Your task to perform on an android device: turn on the 24-hour format for clock Image 0: 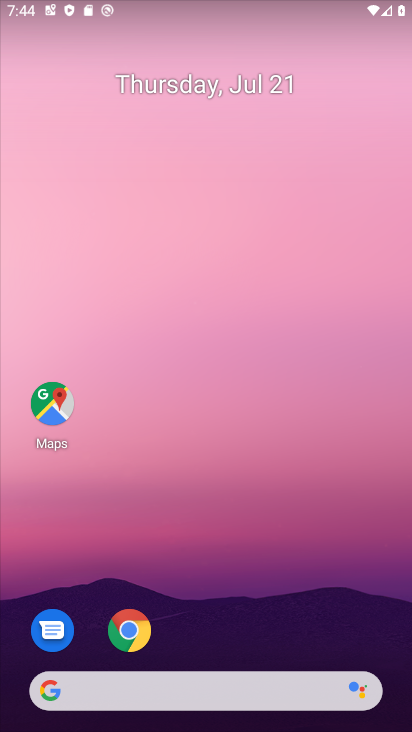
Step 0: drag from (169, 615) to (266, 1)
Your task to perform on an android device: turn on the 24-hour format for clock Image 1: 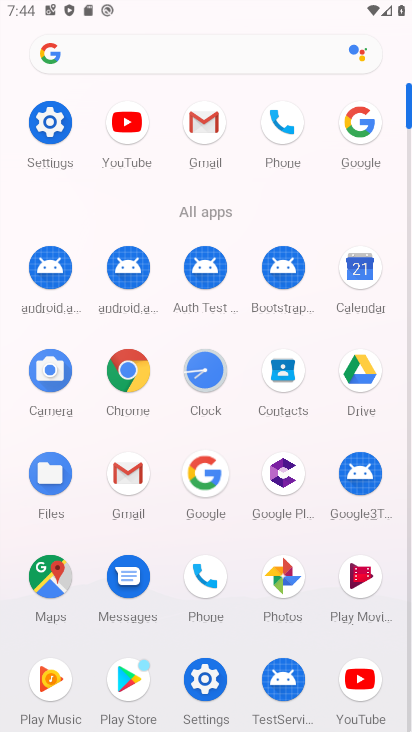
Step 1: click (203, 365)
Your task to perform on an android device: turn on the 24-hour format for clock Image 2: 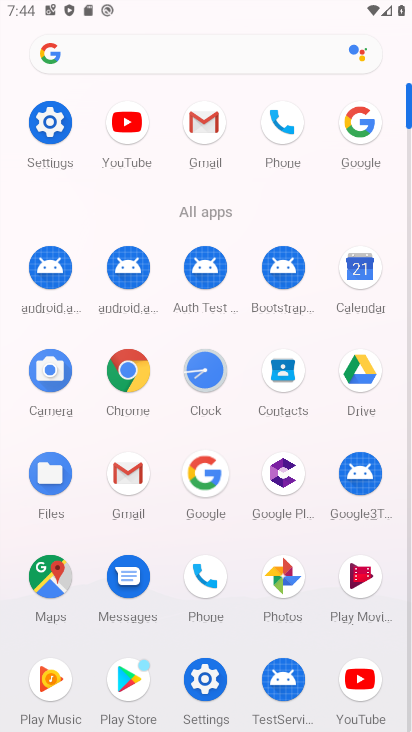
Step 2: click (203, 365)
Your task to perform on an android device: turn on the 24-hour format for clock Image 3: 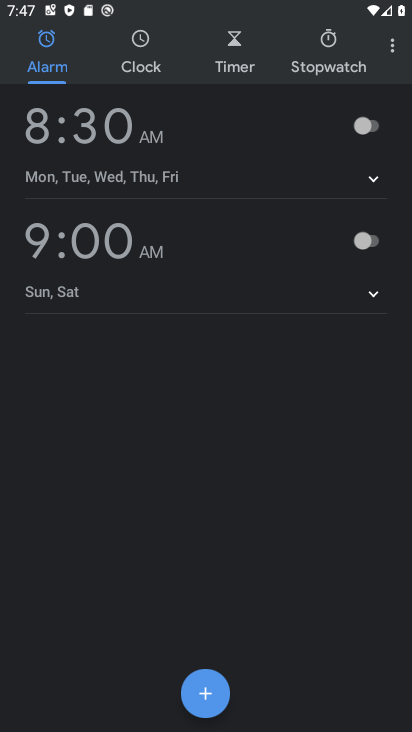
Step 3: click (393, 50)
Your task to perform on an android device: turn on the 24-hour format for clock Image 4: 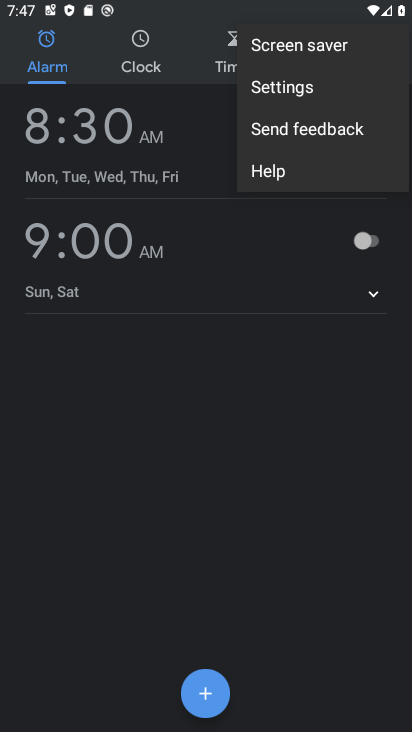
Step 4: click (310, 88)
Your task to perform on an android device: turn on the 24-hour format for clock Image 5: 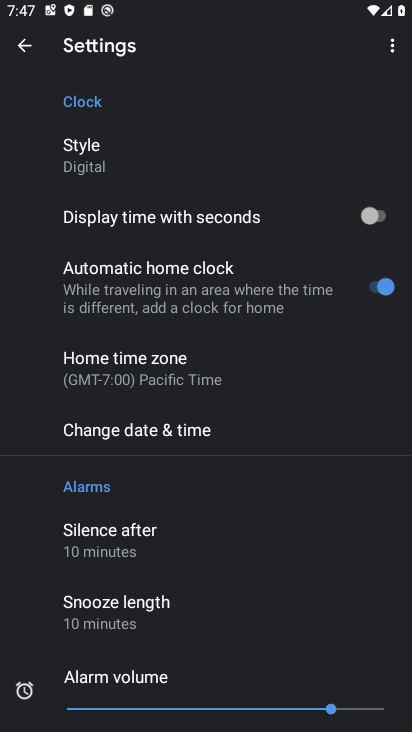
Step 5: click (186, 435)
Your task to perform on an android device: turn on the 24-hour format for clock Image 6: 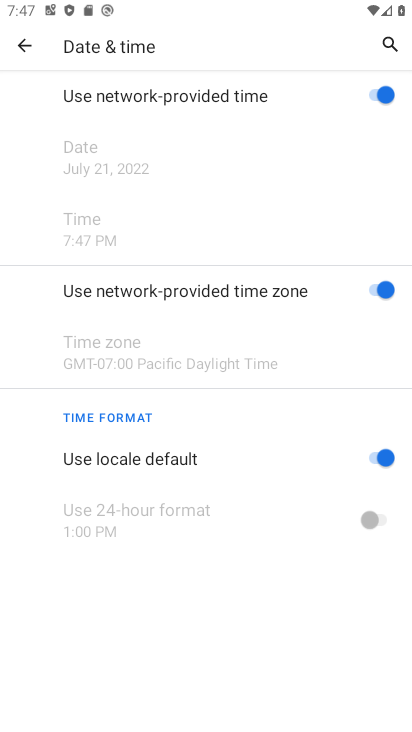
Step 6: click (383, 459)
Your task to perform on an android device: turn on the 24-hour format for clock Image 7: 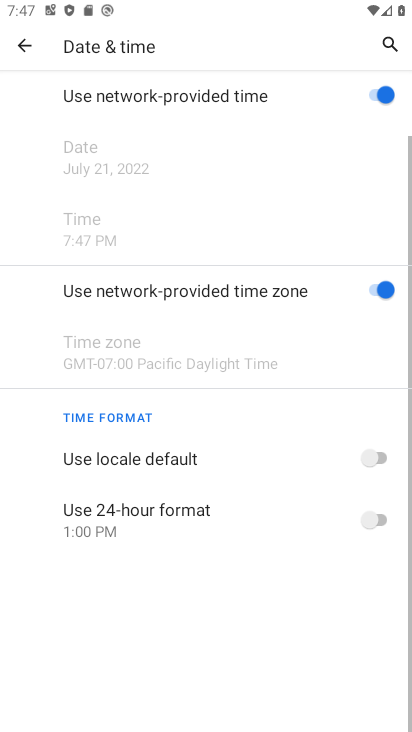
Step 7: click (373, 524)
Your task to perform on an android device: turn on the 24-hour format for clock Image 8: 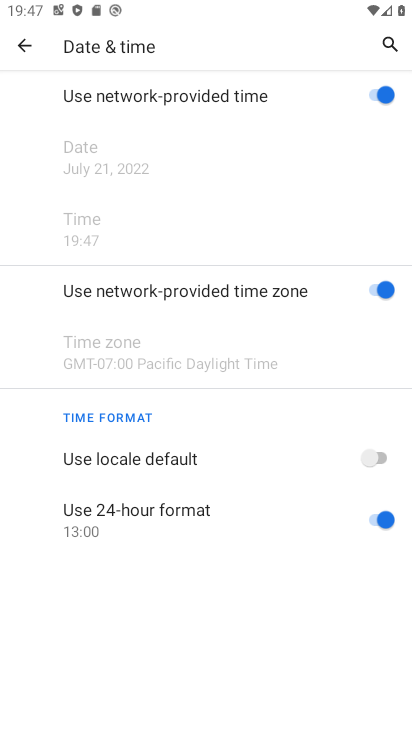
Step 8: task complete